Your task to perform on an android device: Open calendar and show me the second week of next month Image 0: 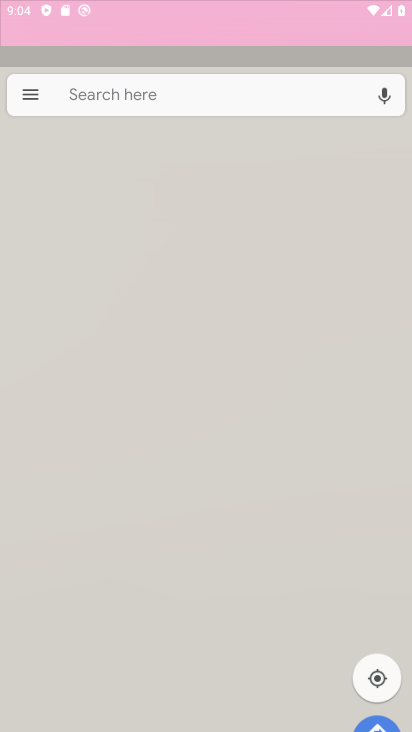
Step 0: click (132, 626)
Your task to perform on an android device: Open calendar and show me the second week of next month Image 1: 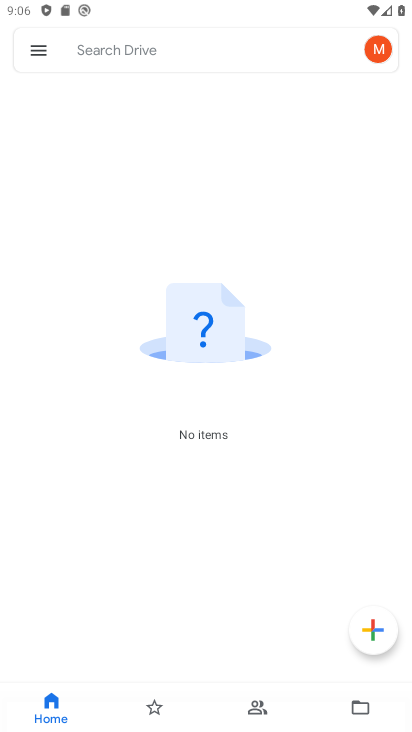
Step 1: press home button
Your task to perform on an android device: Open calendar and show me the second week of next month Image 2: 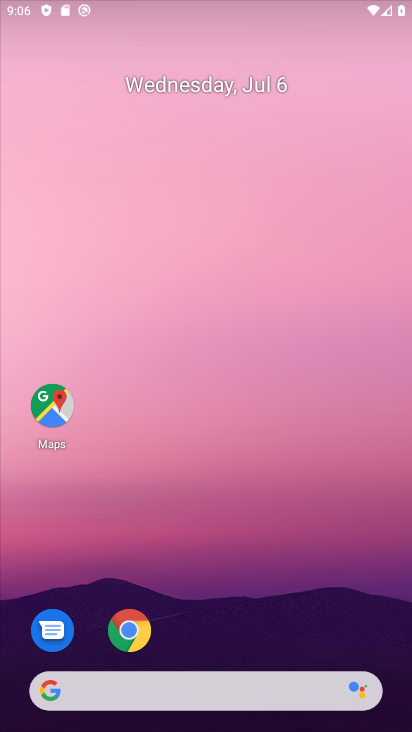
Step 2: drag from (182, 677) to (173, 106)
Your task to perform on an android device: Open calendar and show me the second week of next month Image 3: 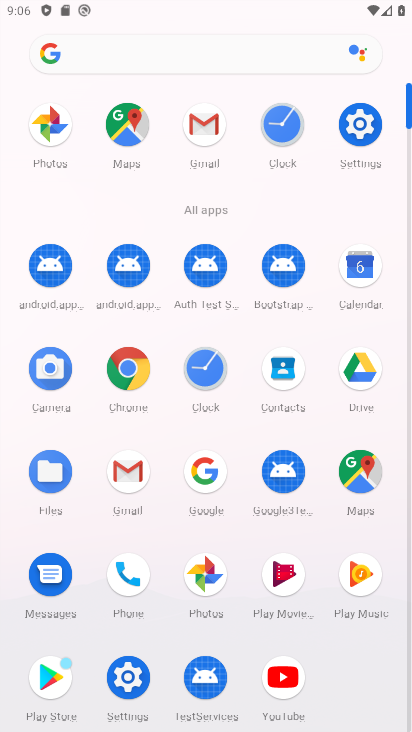
Step 3: click (354, 277)
Your task to perform on an android device: Open calendar and show me the second week of next month Image 4: 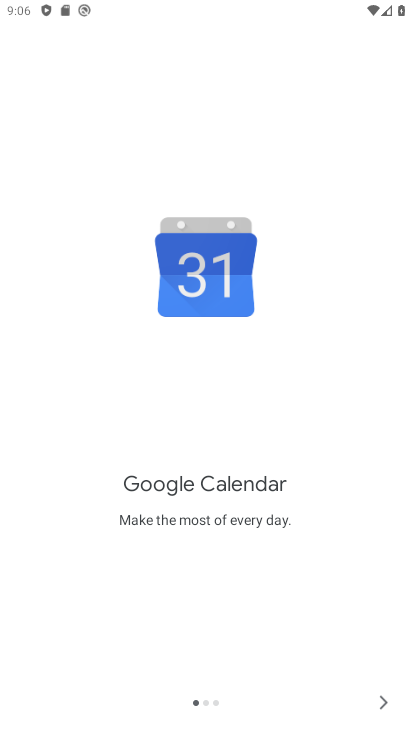
Step 4: click (381, 706)
Your task to perform on an android device: Open calendar and show me the second week of next month Image 5: 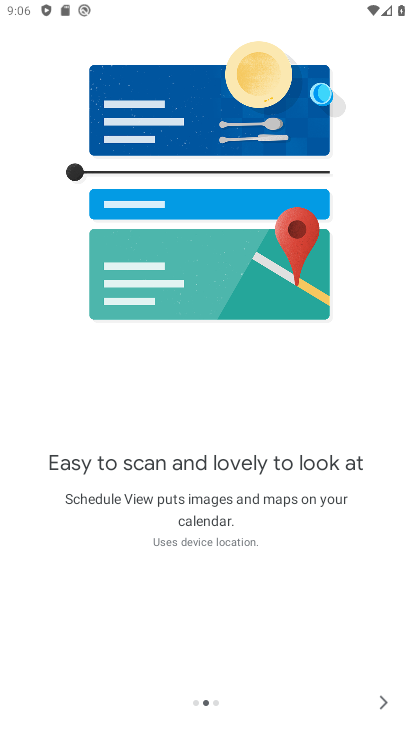
Step 5: click (379, 705)
Your task to perform on an android device: Open calendar and show me the second week of next month Image 6: 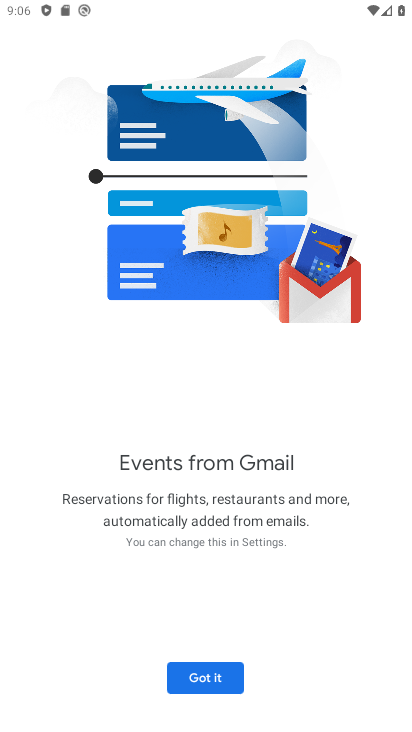
Step 6: click (195, 676)
Your task to perform on an android device: Open calendar and show me the second week of next month Image 7: 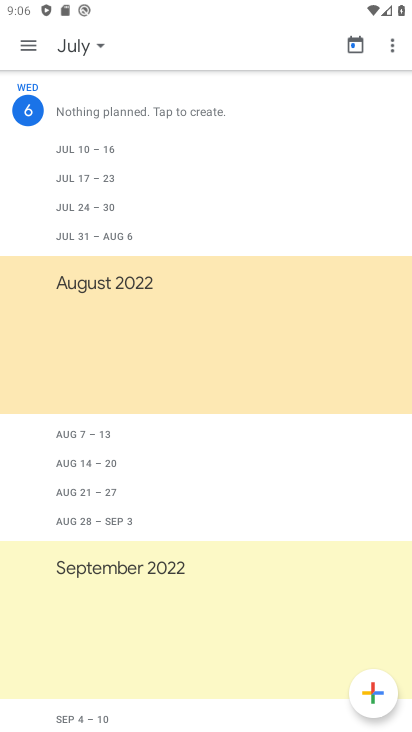
Step 7: click (86, 49)
Your task to perform on an android device: Open calendar and show me the second week of next month Image 8: 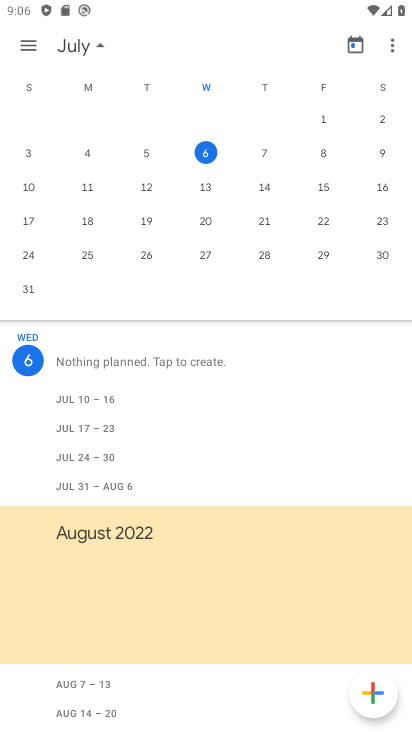
Step 8: drag from (390, 247) to (2, 252)
Your task to perform on an android device: Open calendar and show me the second week of next month Image 9: 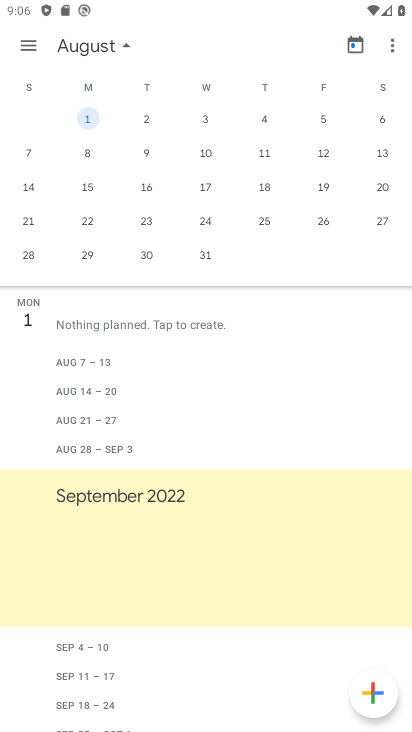
Step 9: click (25, 154)
Your task to perform on an android device: Open calendar and show me the second week of next month Image 10: 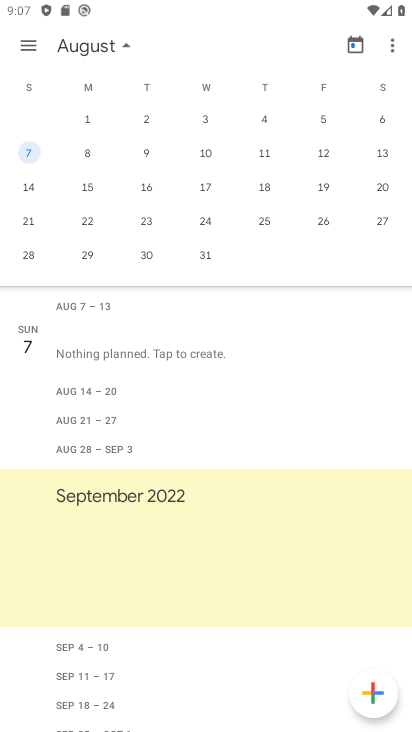
Step 10: task complete